Your task to perform on an android device: Open Google Maps and go to "Timeline" Image 0: 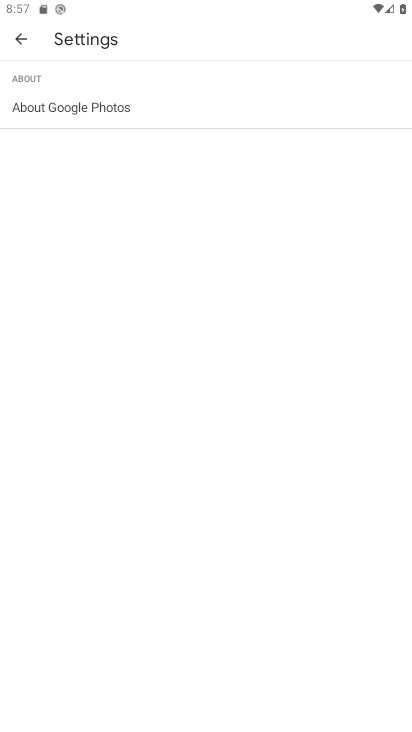
Step 0: press home button
Your task to perform on an android device: Open Google Maps and go to "Timeline" Image 1: 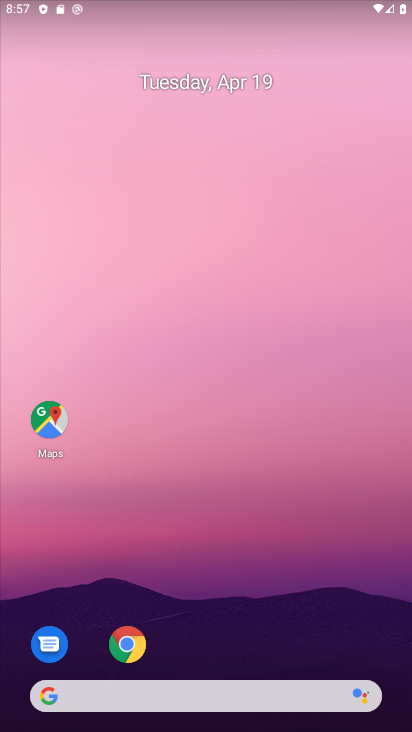
Step 1: drag from (269, 633) to (250, 194)
Your task to perform on an android device: Open Google Maps and go to "Timeline" Image 2: 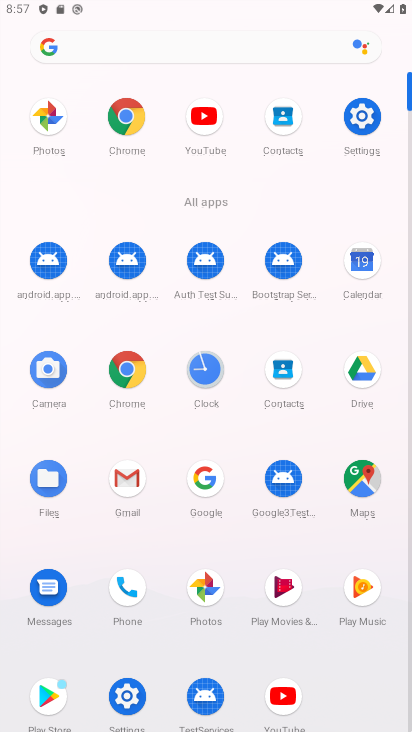
Step 2: click (372, 481)
Your task to perform on an android device: Open Google Maps and go to "Timeline" Image 3: 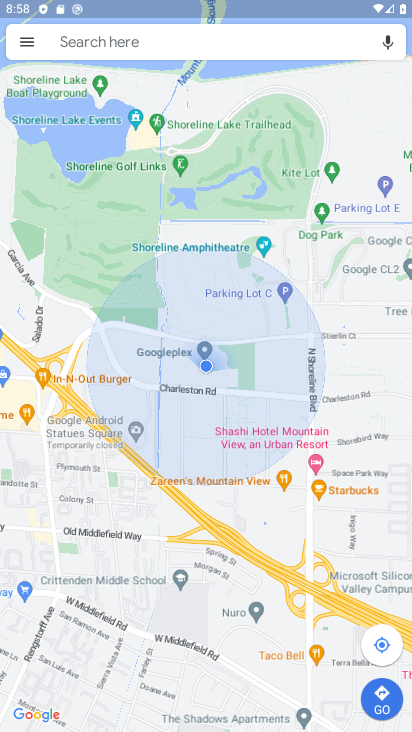
Step 3: click (25, 39)
Your task to perform on an android device: Open Google Maps and go to "Timeline" Image 4: 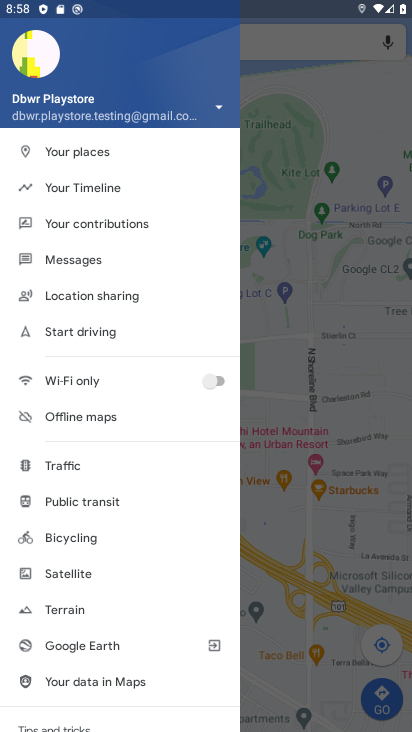
Step 4: click (131, 180)
Your task to perform on an android device: Open Google Maps and go to "Timeline" Image 5: 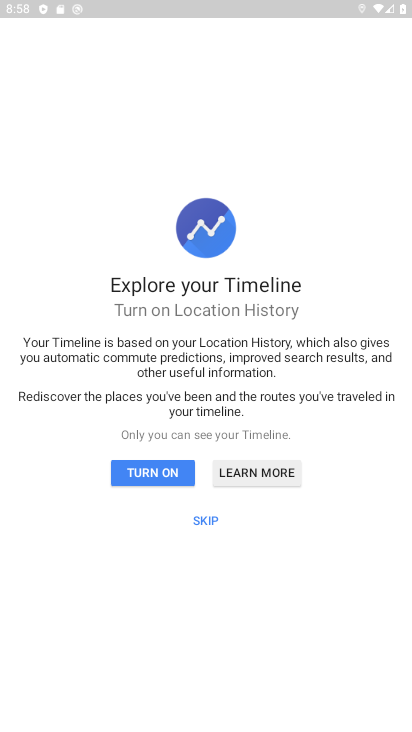
Step 5: click (208, 519)
Your task to perform on an android device: Open Google Maps and go to "Timeline" Image 6: 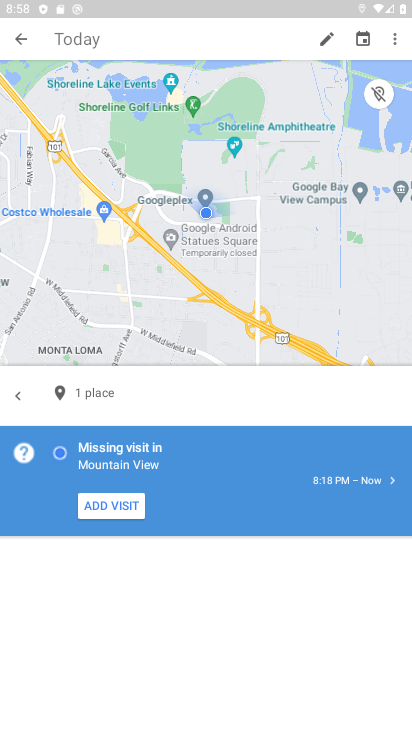
Step 6: task complete